Your task to perform on an android device: Open the stopwatch Image 0: 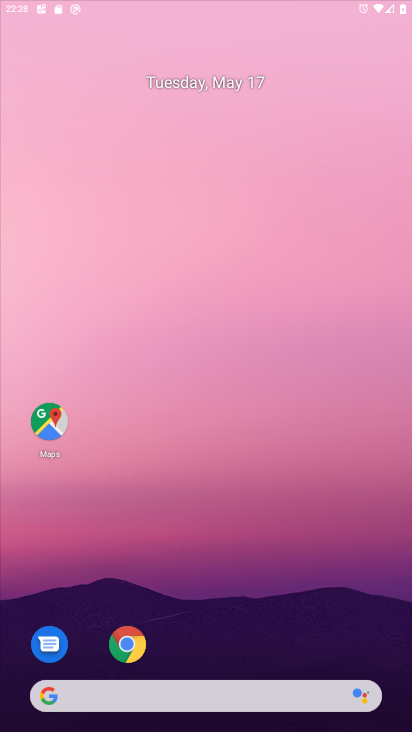
Step 0: press home button
Your task to perform on an android device: Open the stopwatch Image 1: 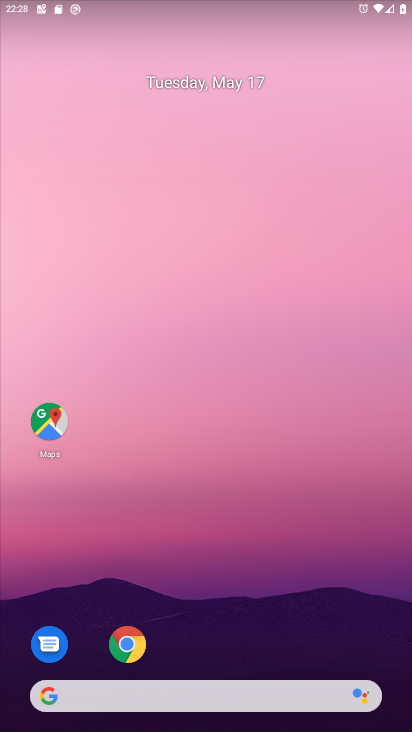
Step 1: drag from (224, 648) to (260, 136)
Your task to perform on an android device: Open the stopwatch Image 2: 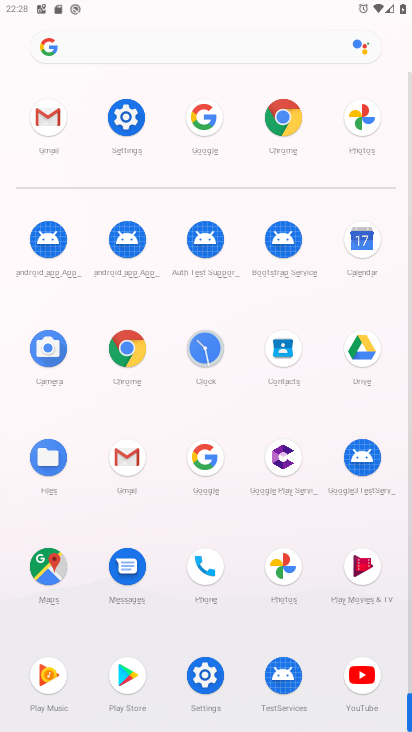
Step 2: click (194, 348)
Your task to perform on an android device: Open the stopwatch Image 3: 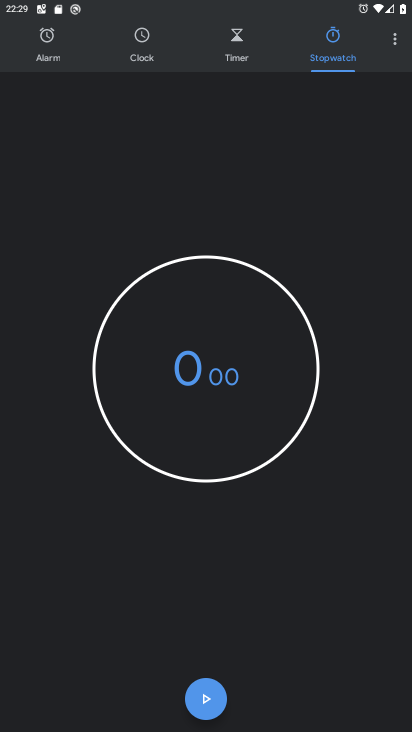
Step 3: click (200, 699)
Your task to perform on an android device: Open the stopwatch Image 4: 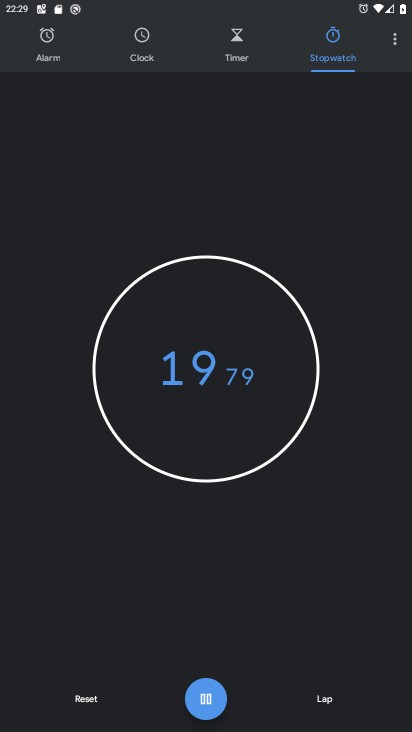
Step 4: click (96, 700)
Your task to perform on an android device: Open the stopwatch Image 5: 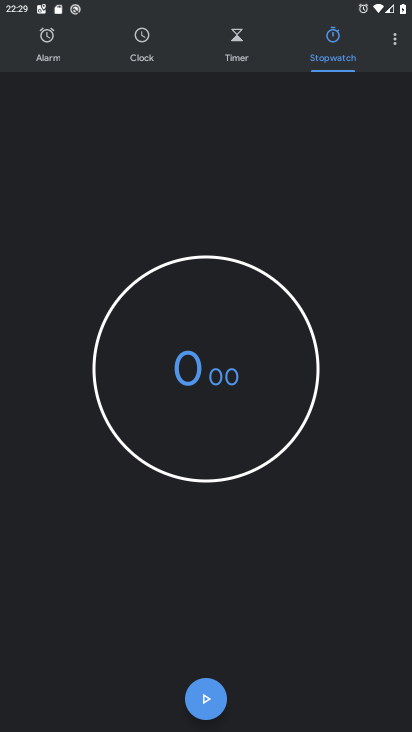
Step 5: task complete